Your task to perform on an android device: Go to location settings Image 0: 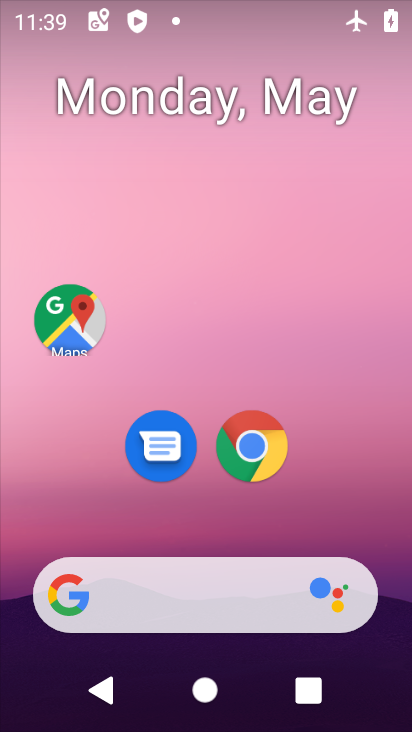
Step 0: drag from (320, 513) to (266, 163)
Your task to perform on an android device: Go to location settings Image 1: 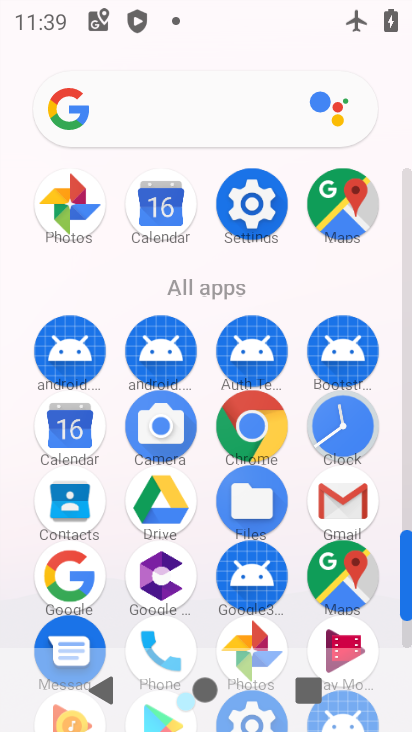
Step 1: click (253, 204)
Your task to perform on an android device: Go to location settings Image 2: 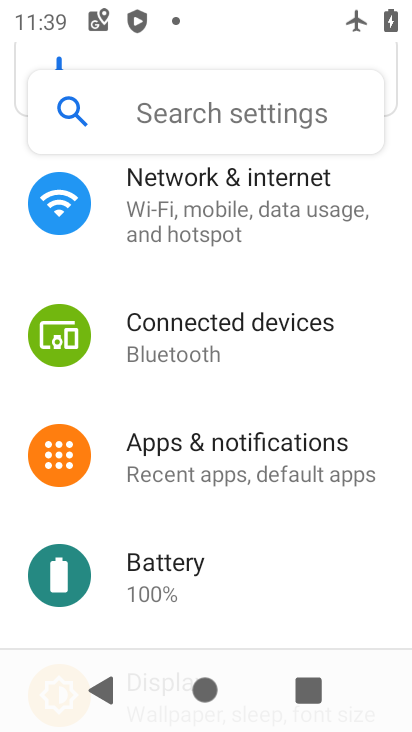
Step 2: drag from (242, 395) to (278, 287)
Your task to perform on an android device: Go to location settings Image 3: 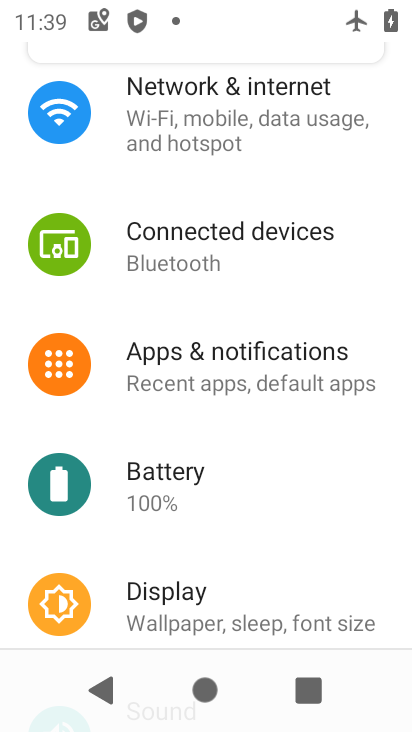
Step 3: drag from (234, 454) to (264, 353)
Your task to perform on an android device: Go to location settings Image 4: 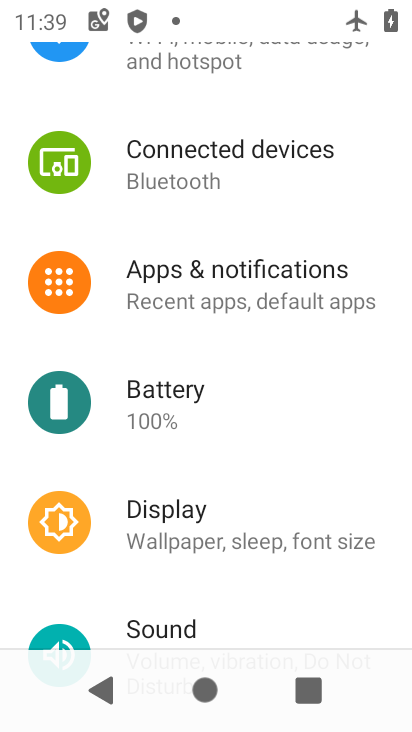
Step 4: drag from (225, 469) to (307, 319)
Your task to perform on an android device: Go to location settings Image 5: 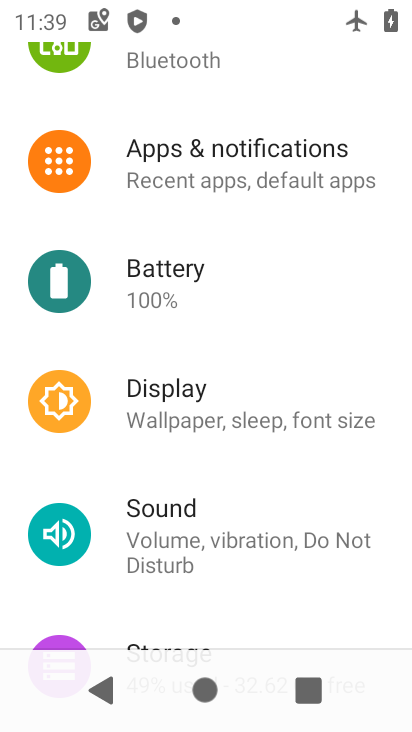
Step 5: drag from (226, 476) to (255, 347)
Your task to perform on an android device: Go to location settings Image 6: 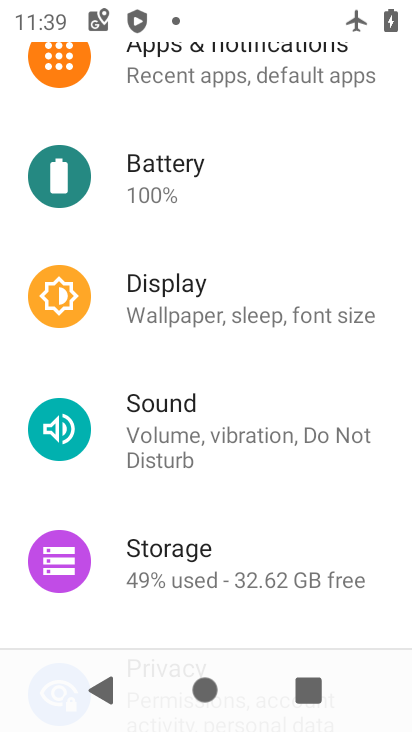
Step 6: drag from (172, 503) to (250, 408)
Your task to perform on an android device: Go to location settings Image 7: 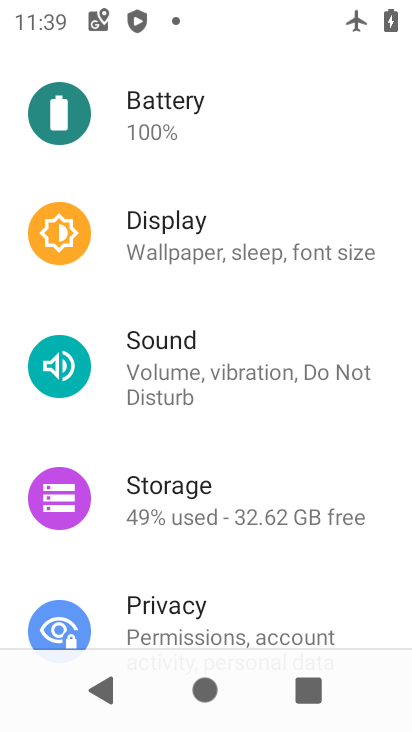
Step 7: drag from (181, 550) to (236, 423)
Your task to perform on an android device: Go to location settings Image 8: 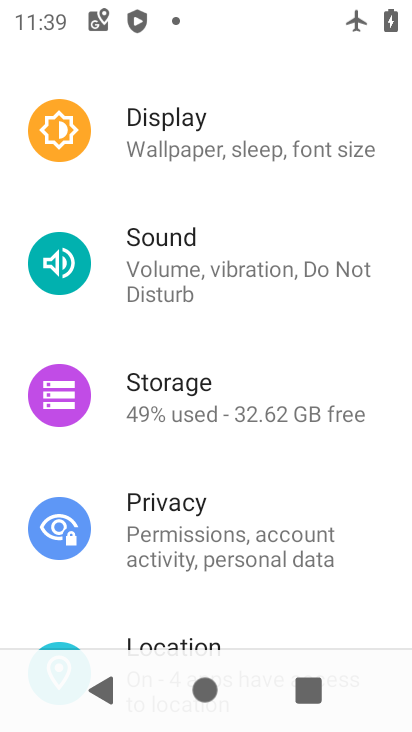
Step 8: drag from (166, 459) to (272, 347)
Your task to perform on an android device: Go to location settings Image 9: 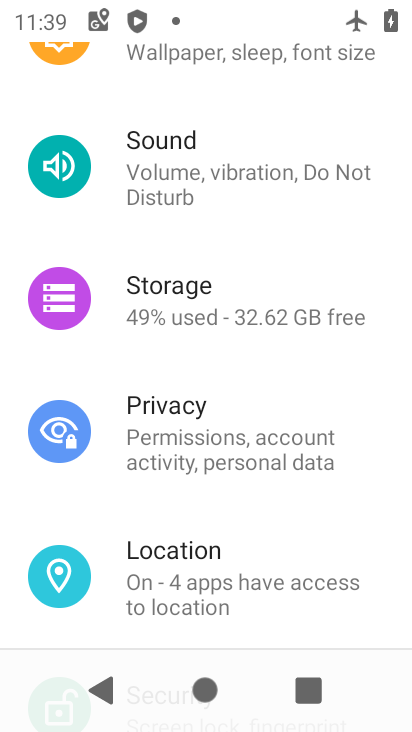
Step 9: drag from (175, 531) to (260, 408)
Your task to perform on an android device: Go to location settings Image 10: 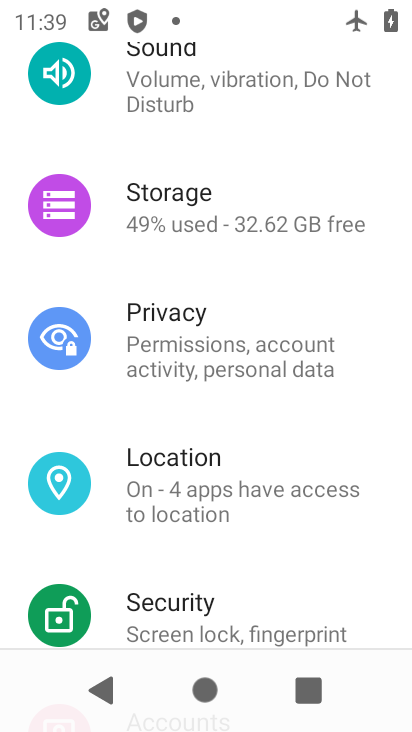
Step 10: click (191, 470)
Your task to perform on an android device: Go to location settings Image 11: 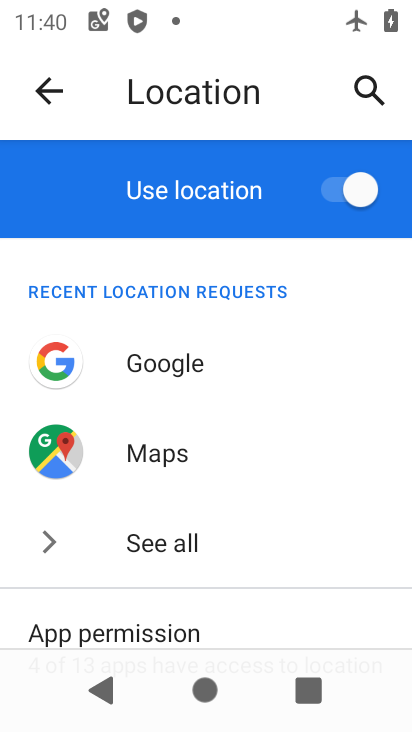
Step 11: task complete